Your task to perform on an android device: turn off smart reply in the gmail app Image 0: 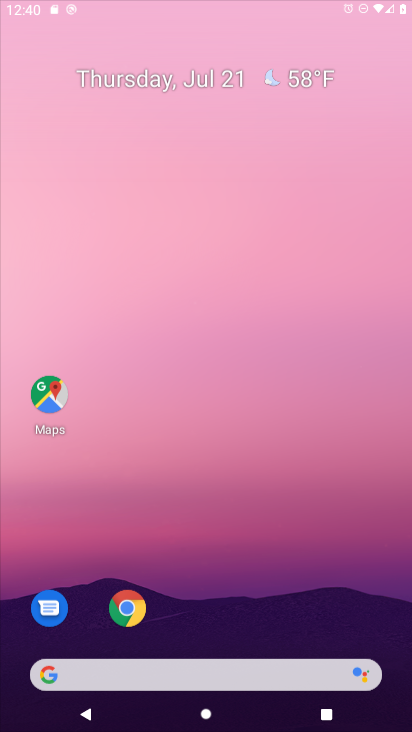
Step 0: press home button
Your task to perform on an android device: turn off smart reply in the gmail app Image 1: 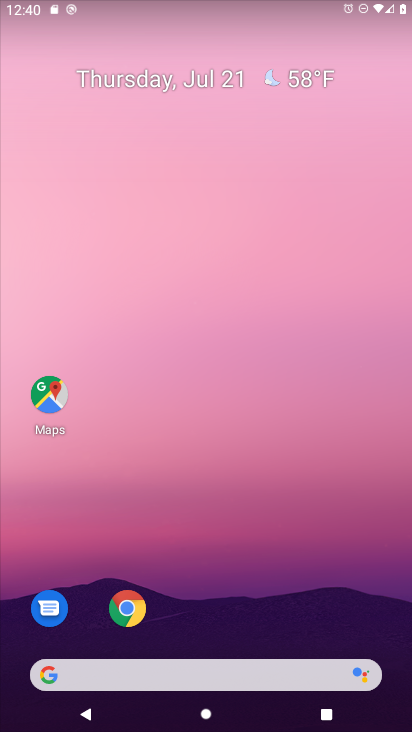
Step 1: drag from (220, 633) to (276, 16)
Your task to perform on an android device: turn off smart reply in the gmail app Image 2: 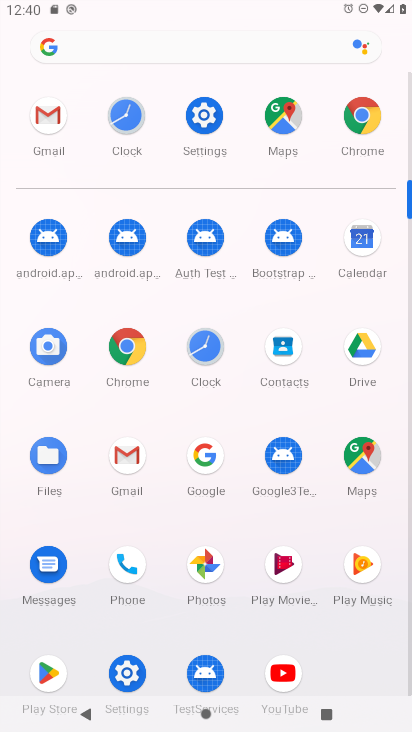
Step 2: click (53, 127)
Your task to perform on an android device: turn off smart reply in the gmail app Image 3: 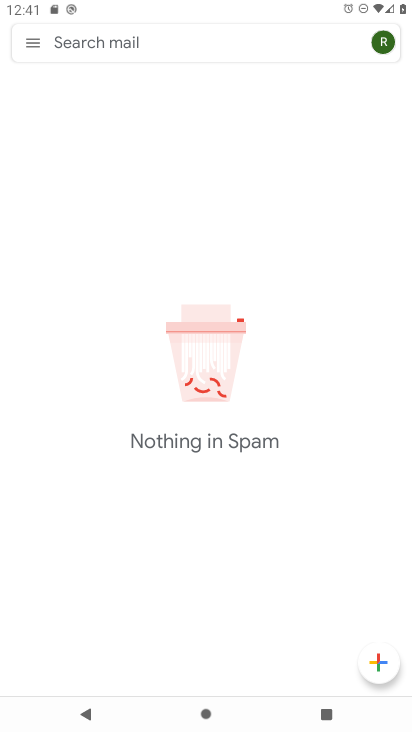
Step 3: click (40, 44)
Your task to perform on an android device: turn off smart reply in the gmail app Image 4: 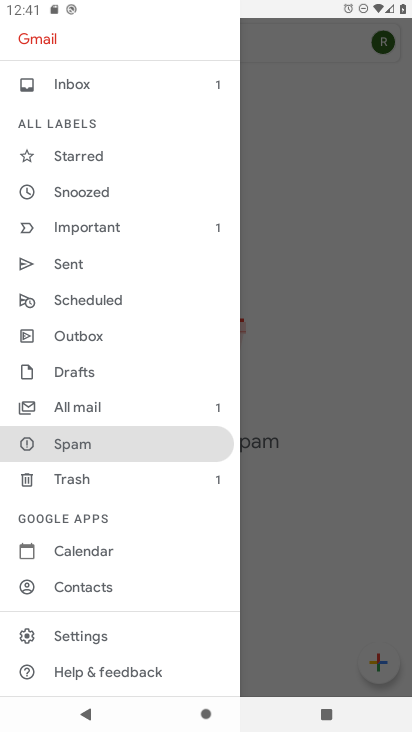
Step 4: click (83, 631)
Your task to perform on an android device: turn off smart reply in the gmail app Image 5: 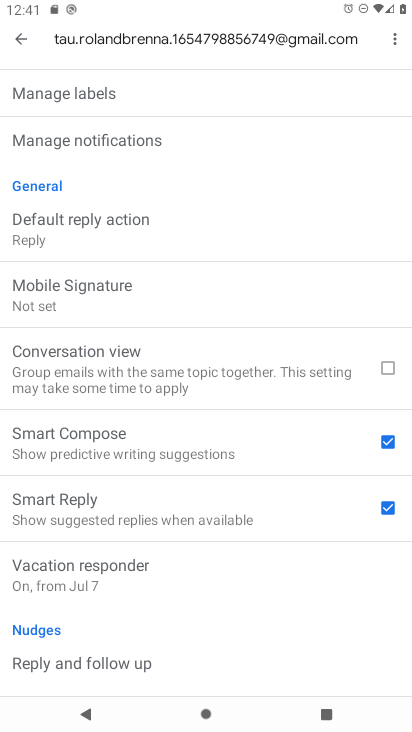
Step 5: click (383, 508)
Your task to perform on an android device: turn off smart reply in the gmail app Image 6: 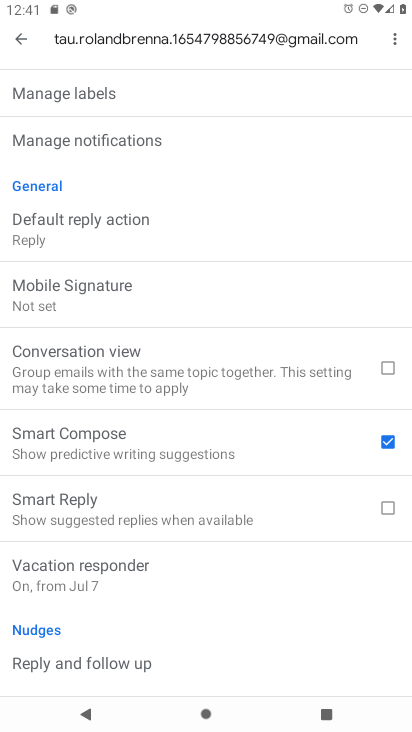
Step 6: task complete